Your task to perform on an android device: delete browsing data in the chrome app Image 0: 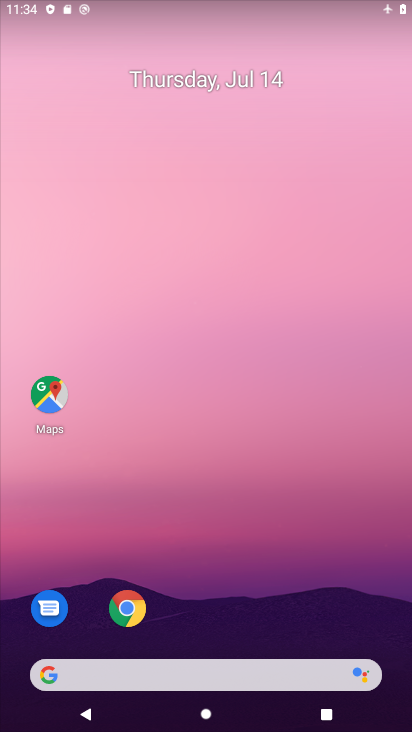
Step 0: drag from (236, 668) to (262, 160)
Your task to perform on an android device: delete browsing data in the chrome app Image 1: 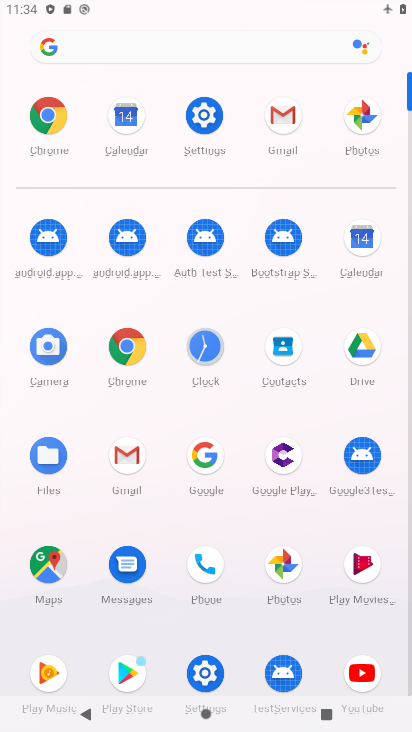
Step 1: click (136, 355)
Your task to perform on an android device: delete browsing data in the chrome app Image 2: 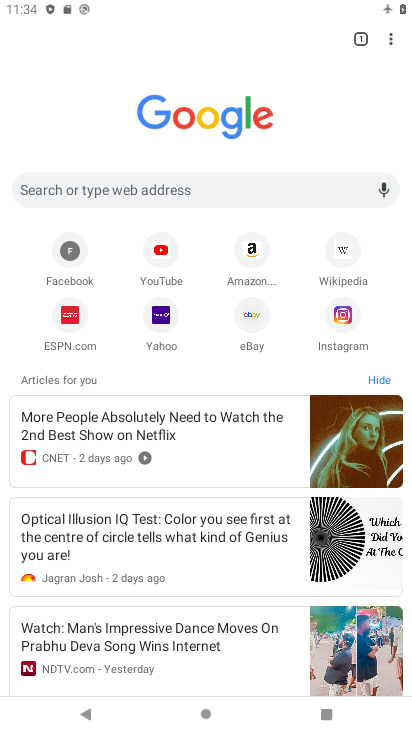
Step 2: task complete